Your task to perform on an android device: change the clock style Image 0: 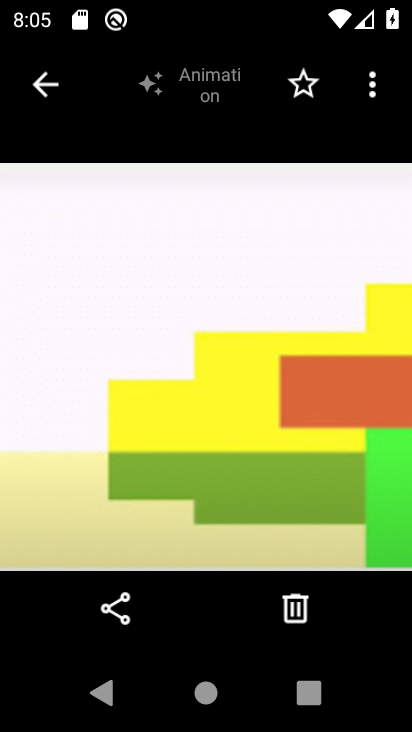
Step 0: press home button
Your task to perform on an android device: change the clock style Image 1: 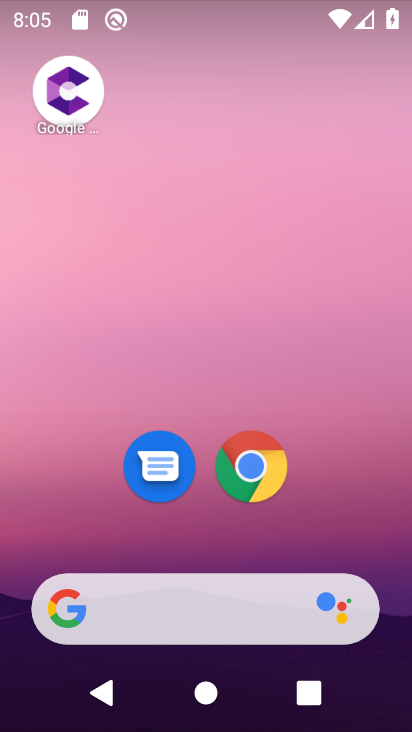
Step 1: drag from (215, 718) to (219, 163)
Your task to perform on an android device: change the clock style Image 2: 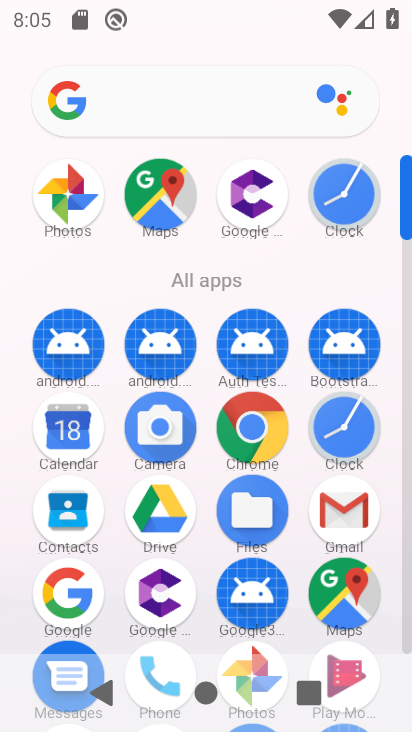
Step 2: click (343, 414)
Your task to perform on an android device: change the clock style Image 3: 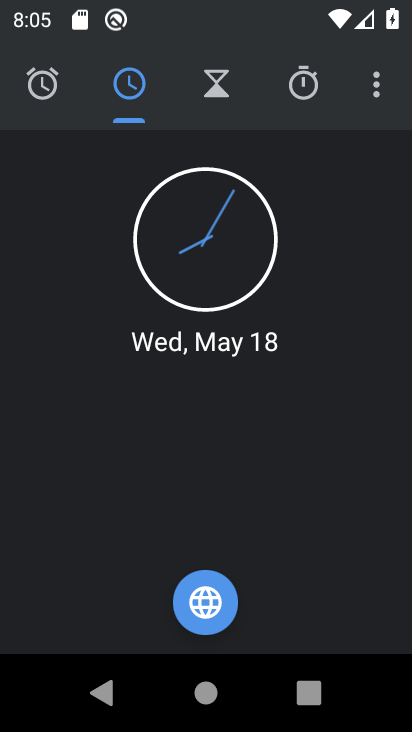
Step 3: click (377, 94)
Your task to perform on an android device: change the clock style Image 4: 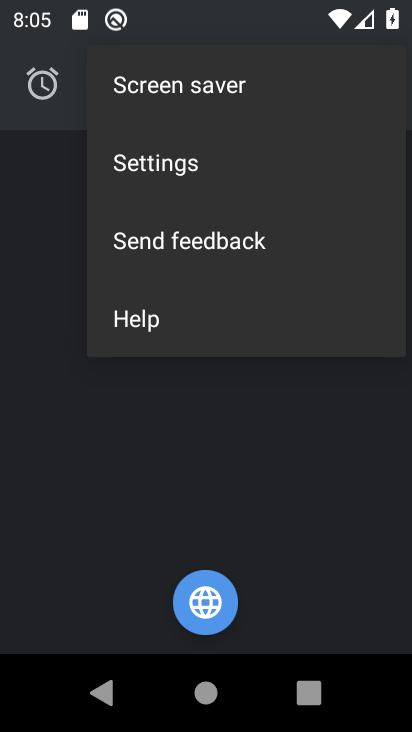
Step 4: click (136, 162)
Your task to perform on an android device: change the clock style Image 5: 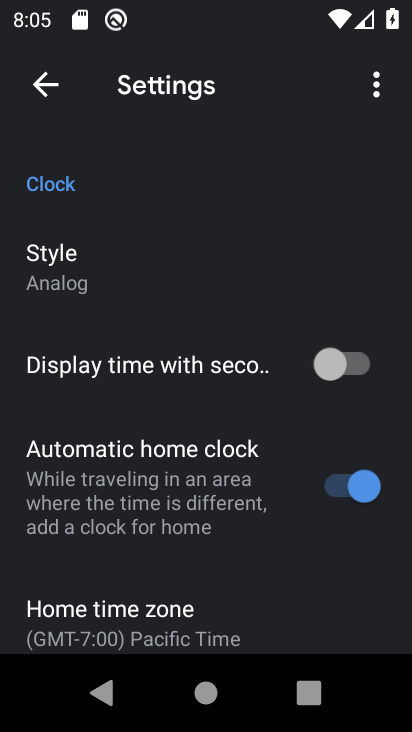
Step 5: click (52, 269)
Your task to perform on an android device: change the clock style Image 6: 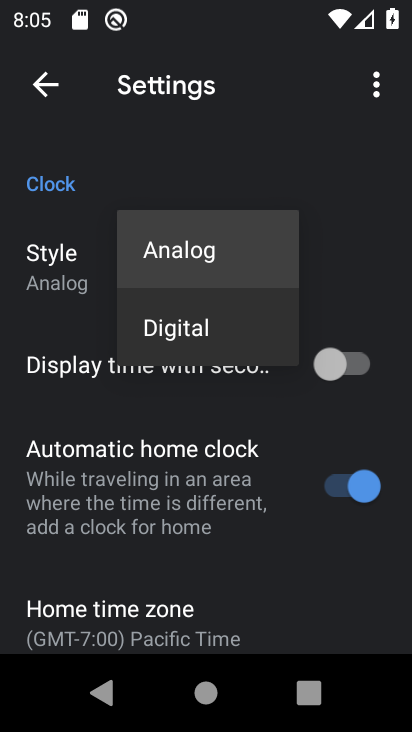
Step 6: click (164, 329)
Your task to perform on an android device: change the clock style Image 7: 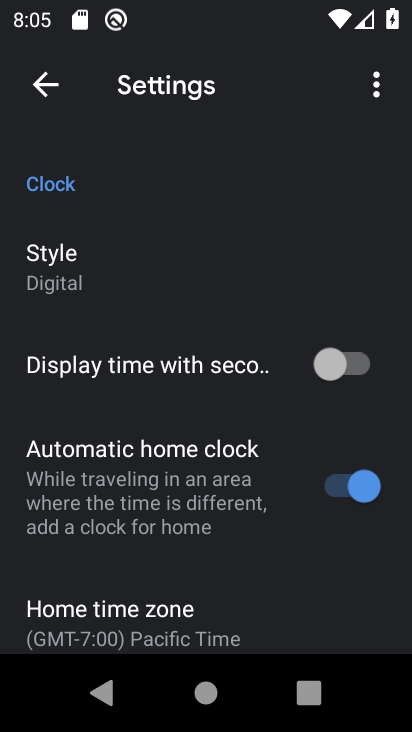
Step 7: task complete